Your task to perform on an android device: turn vacation reply on in the gmail app Image 0: 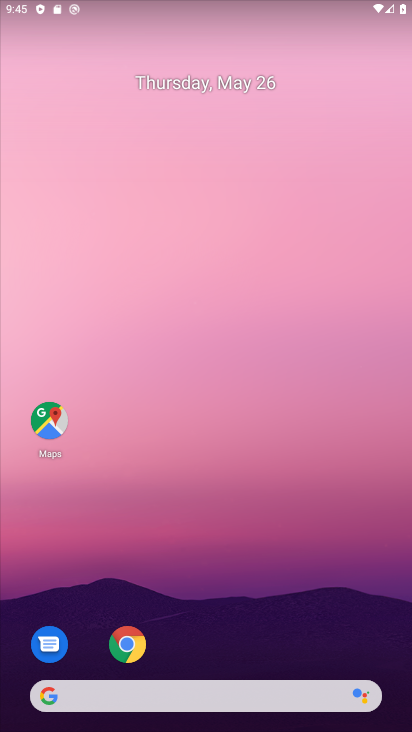
Step 0: drag from (368, 648) to (369, 238)
Your task to perform on an android device: turn vacation reply on in the gmail app Image 1: 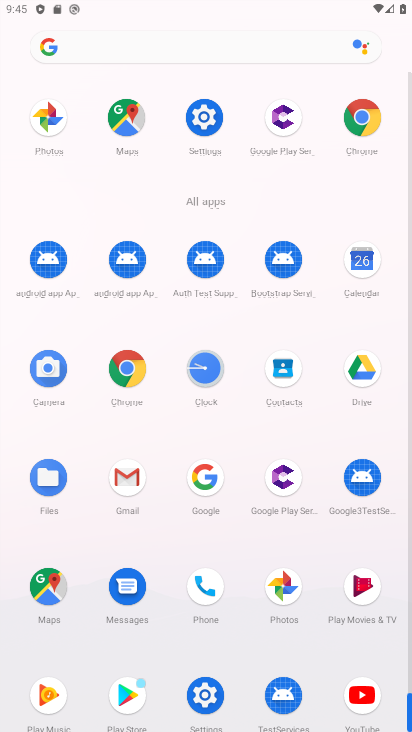
Step 1: click (126, 495)
Your task to perform on an android device: turn vacation reply on in the gmail app Image 2: 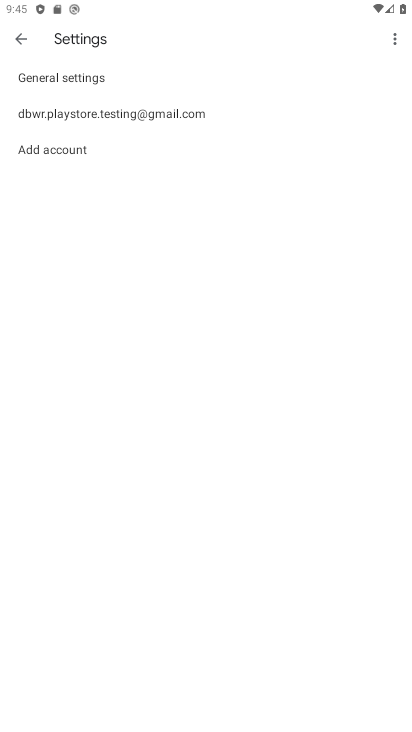
Step 2: click (168, 124)
Your task to perform on an android device: turn vacation reply on in the gmail app Image 3: 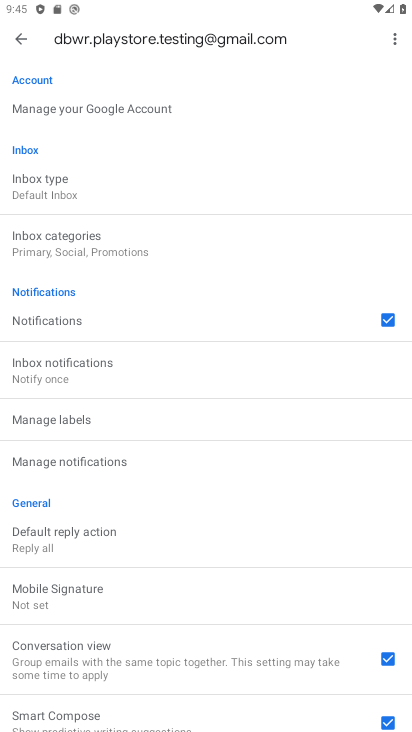
Step 3: drag from (259, 385) to (276, 288)
Your task to perform on an android device: turn vacation reply on in the gmail app Image 4: 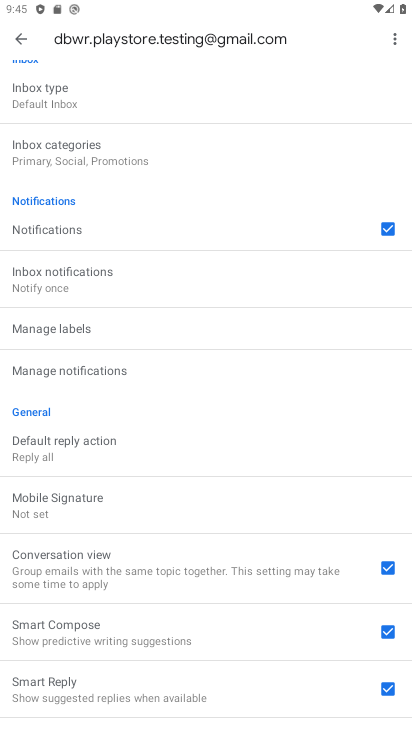
Step 4: drag from (284, 474) to (287, 372)
Your task to perform on an android device: turn vacation reply on in the gmail app Image 5: 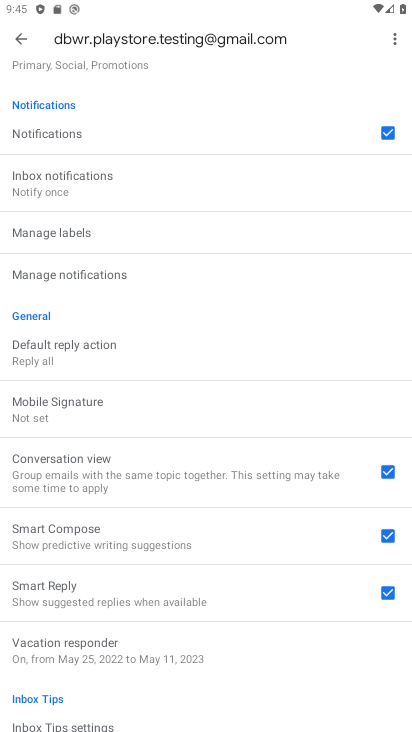
Step 5: drag from (296, 495) to (300, 383)
Your task to perform on an android device: turn vacation reply on in the gmail app Image 6: 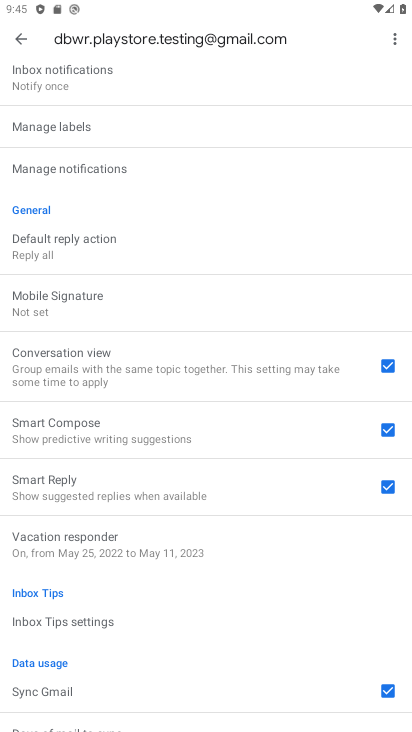
Step 6: drag from (295, 569) to (305, 358)
Your task to perform on an android device: turn vacation reply on in the gmail app Image 7: 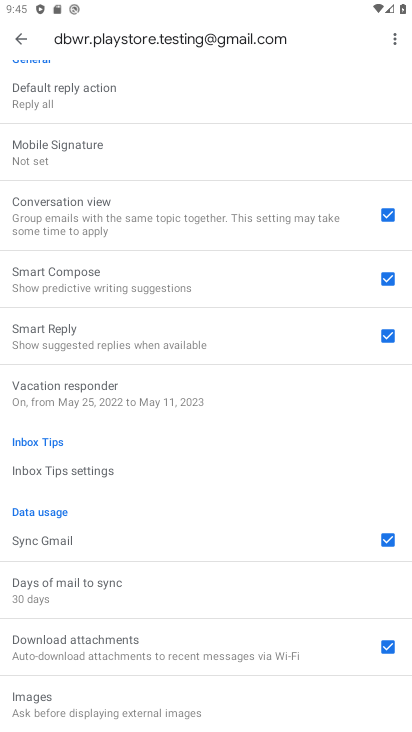
Step 7: click (123, 395)
Your task to perform on an android device: turn vacation reply on in the gmail app Image 8: 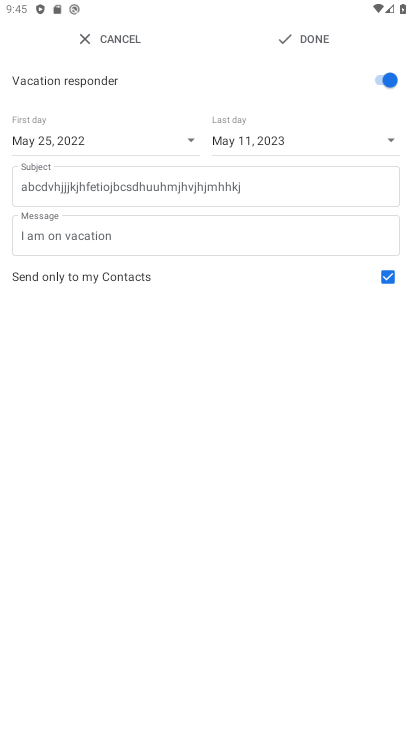
Step 8: task complete